Your task to perform on an android device: Open Chrome and go to the settings page Image 0: 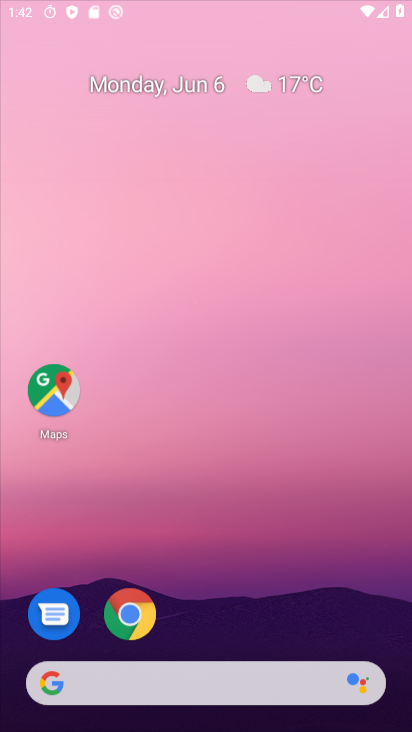
Step 0: click (204, 252)
Your task to perform on an android device: Open Chrome and go to the settings page Image 1: 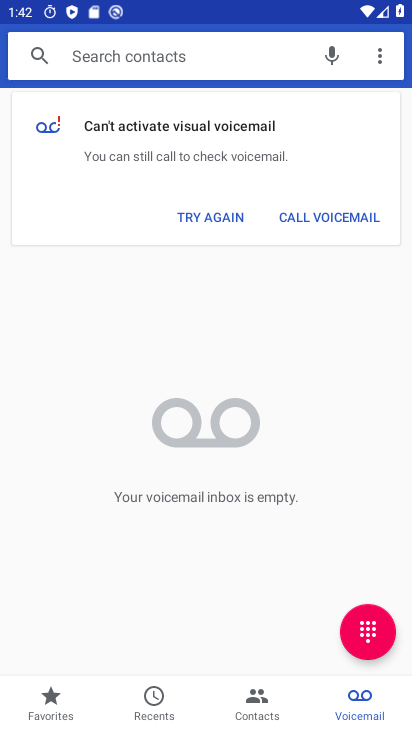
Step 1: drag from (219, 596) to (265, 232)
Your task to perform on an android device: Open Chrome and go to the settings page Image 2: 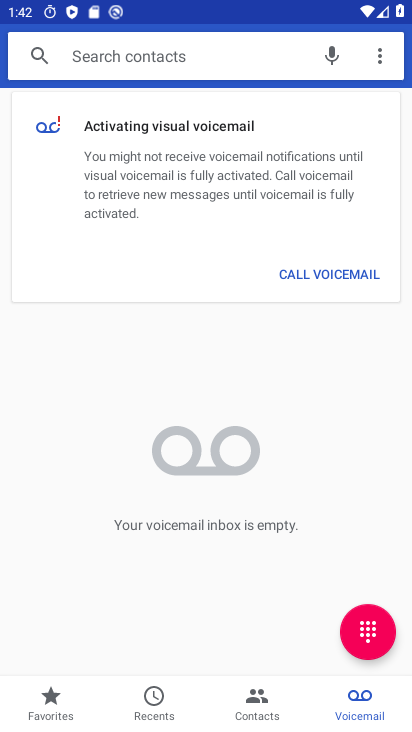
Step 2: press home button
Your task to perform on an android device: Open Chrome and go to the settings page Image 3: 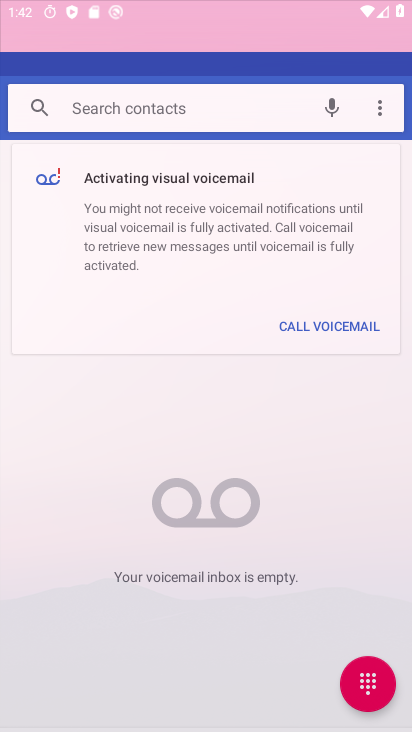
Step 3: drag from (218, 654) to (215, 379)
Your task to perform on an android device: Open Chrome and go to the settings page Image 4: 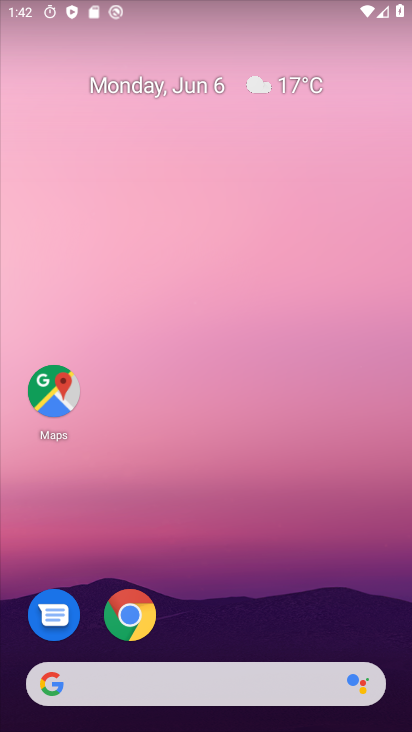
Step 4: drag from (197, 641) to (203, 495)
Your task to perform on an android device: Open Chrome and go to the settings page Image 5: 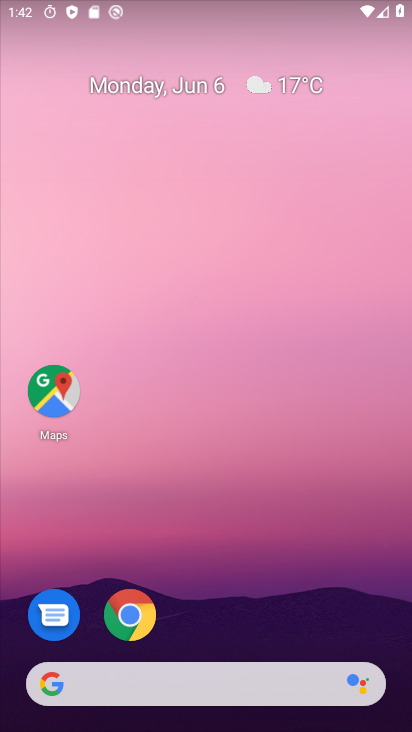
Step 5: drag from (221, 605) to (208, 12)
Your task to perform on an android device: Open Chrome and go to the settings page Image 6: 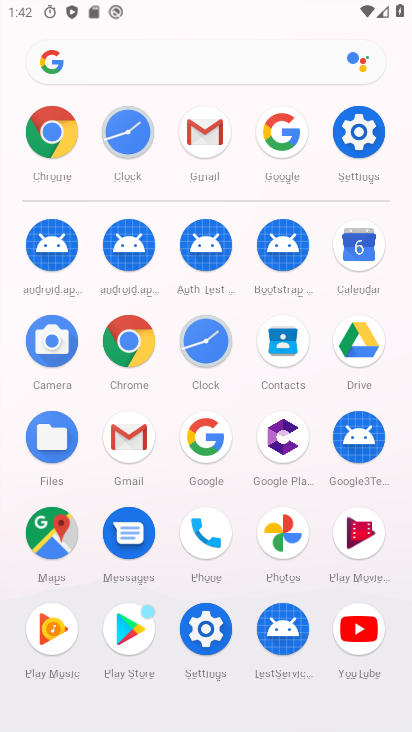
Step 6: click (49, 137)
Your task to perform on an android device: Open Chrome and go to the settings page Image 7: 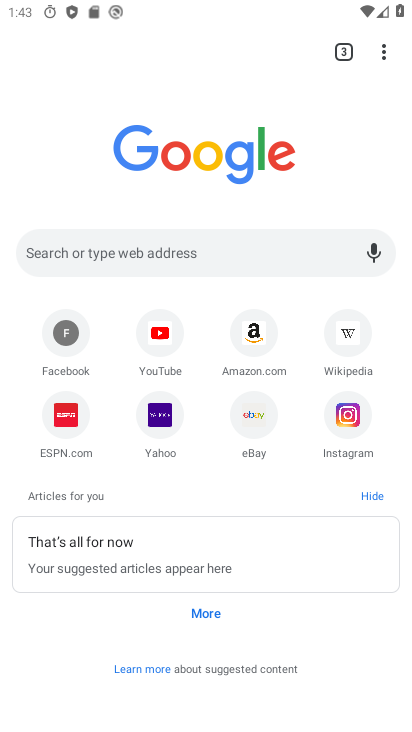
Step 7: click (382, 55)
Your task to perform on an android device: Open Chrome and go to the settings page Image 8: 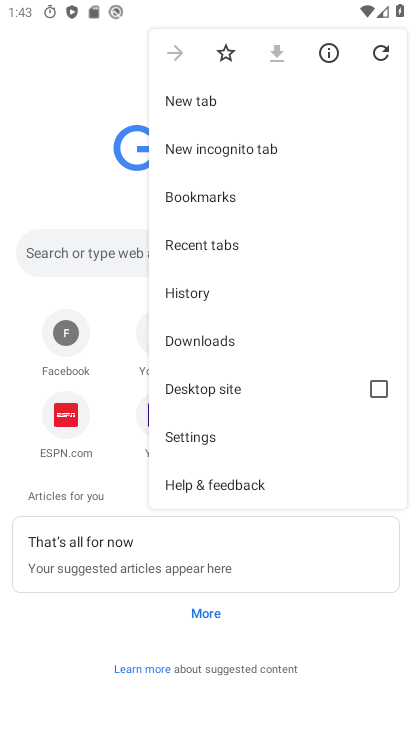
Step 8: click (209, 433)
Your task to perform on an android device: Open Chrome and go to the settings page Image 9: 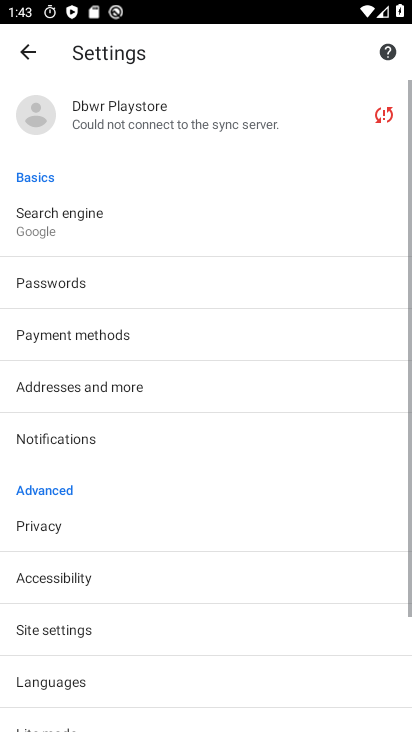
Step 9: task complete